Your task to perform on an android device: Show me popular games on the Play Store Image 0: 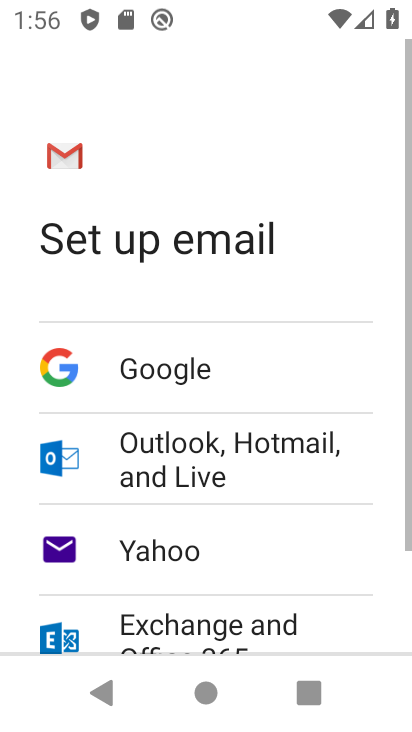
Step 0: press back button
Your task to perform on an android device: Show me popular games on the Play Store Image 1: 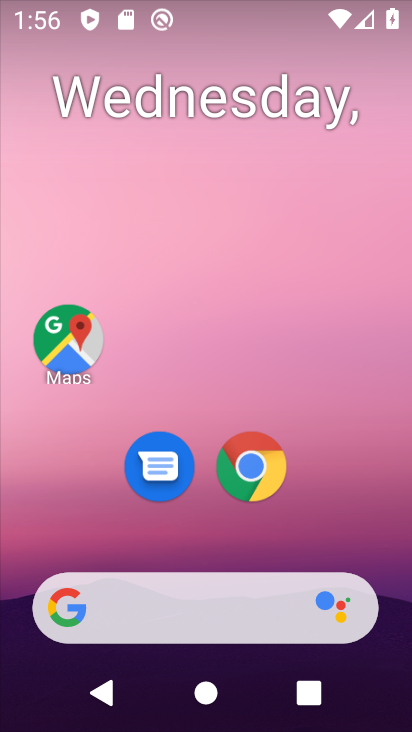
Step 1: drag from (328, 515) to (244, 67)
Your task to perform on an android device: Show me popular games on the Play Store Image 2: 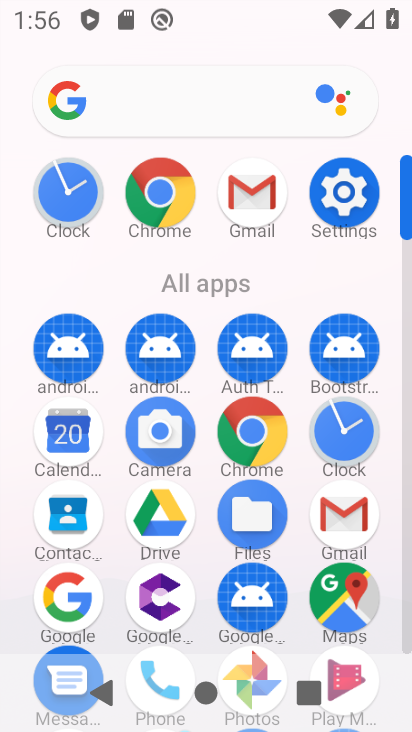
Step 2: drag from (24, 574) to (32, 236)
Your task to perform on an android device: Show me popular games on the Play Store Image 3: 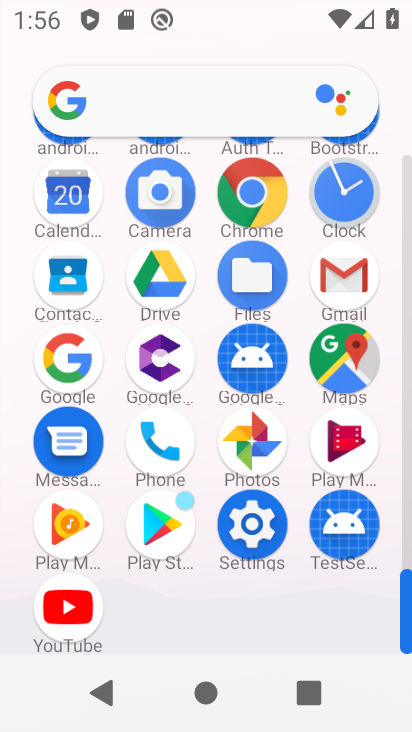
Step 3: drag from (17, 521) to (17, 307)
Your task to perform on an android device: Show me popular games on the Play Store Image 4: 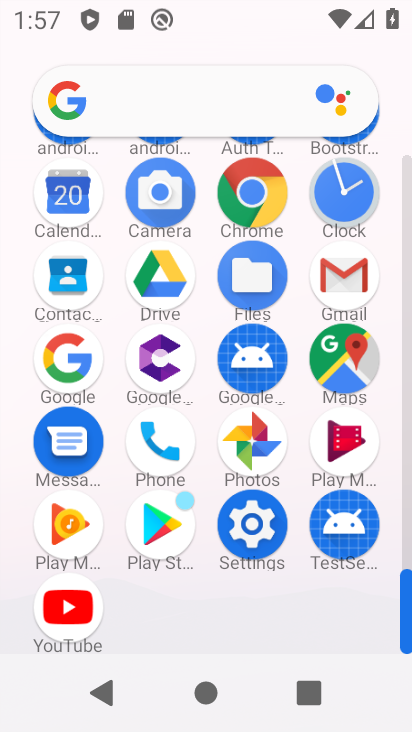
Step 4: drag from (11, 244) to (21, 518)
Your task to perform on an android device: Show me popular games on the Play Store Image 5: 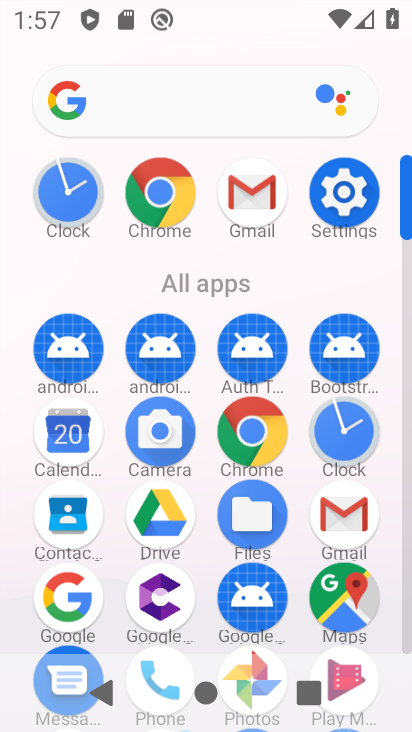
Step 5: drag from (6, 466) to (7, 272)
Your task to perform on an android device: Show me popular games on the Play Store Image 6: 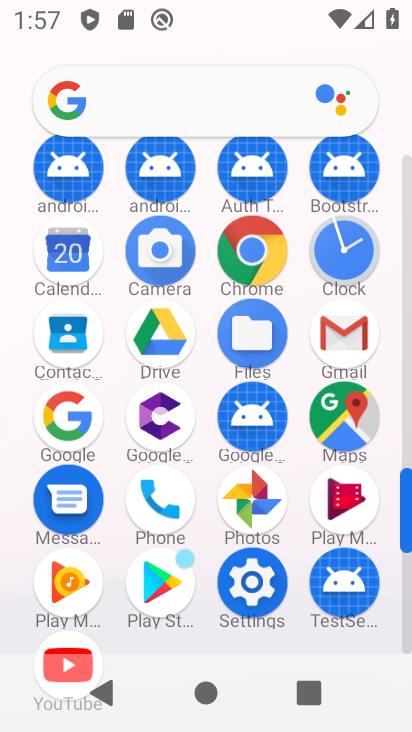
Step 6: click (156, 584)
Your task to perform on an android device: Show me popular games on the Play Store Image 7: 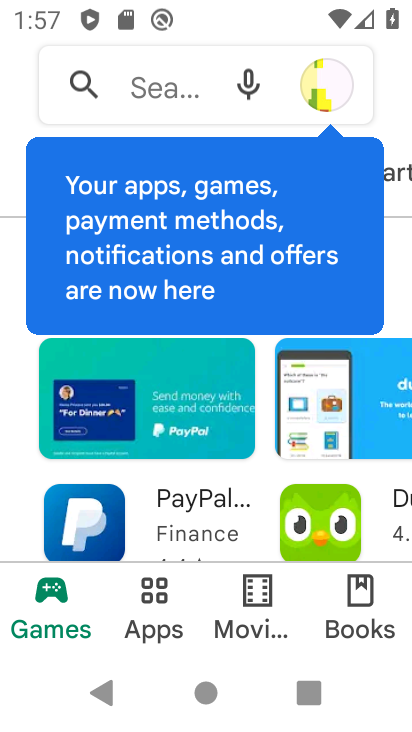
Step 7: task complete